Your task to perform on an android device: Do I have any events this weekend? Image 0: 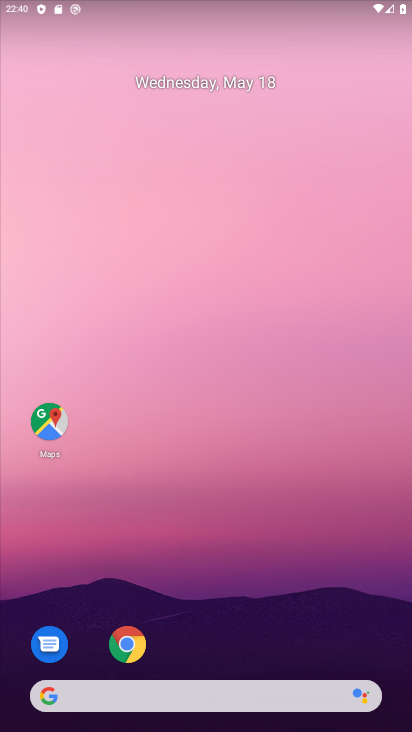
Step 0: drag from (266, 573) to (237, 172)
Your task to perform on an android device: Do I have any events this weekend? Image 1: 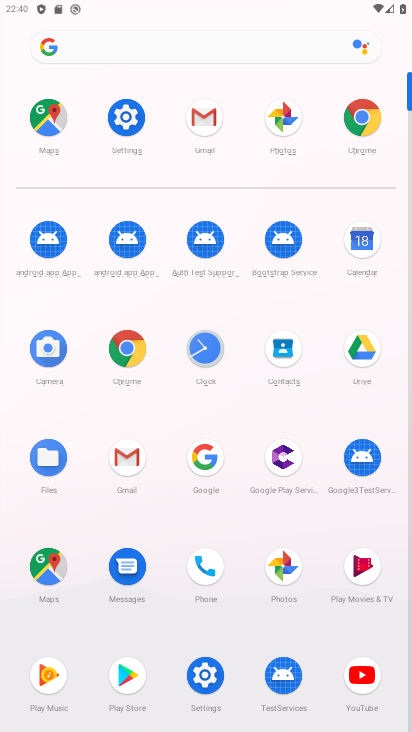
Step 1: click (364, 242)
Your task to perform on an android device: Do I have any events this weekend? Image 2: 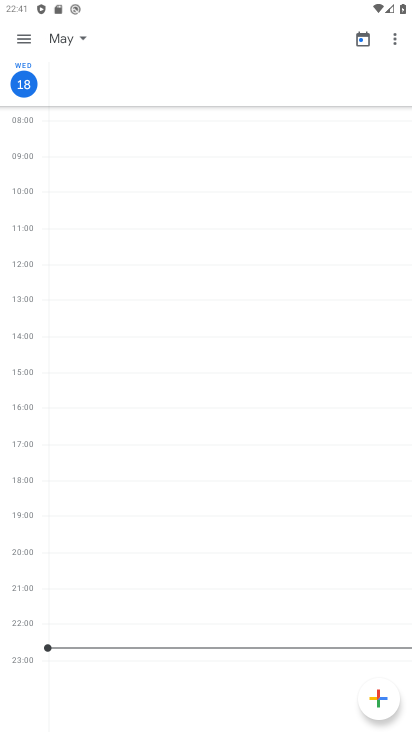
Step 2: click (21, 33)
Your task to perform on an android device: Do I have any events this weekend? Image 3: 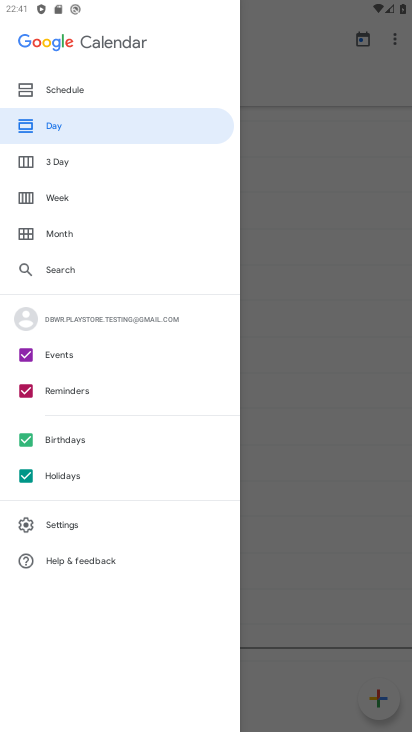
Step 3: click (52, 158)
Your task to perform on an android device: Do I have any events this weekend? Image 4: 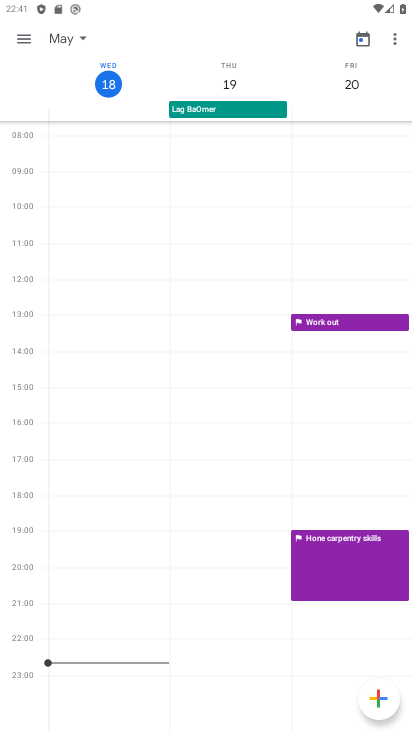
Step 4: task complete